Your task to perform on an android device: show emergency info Image 0: 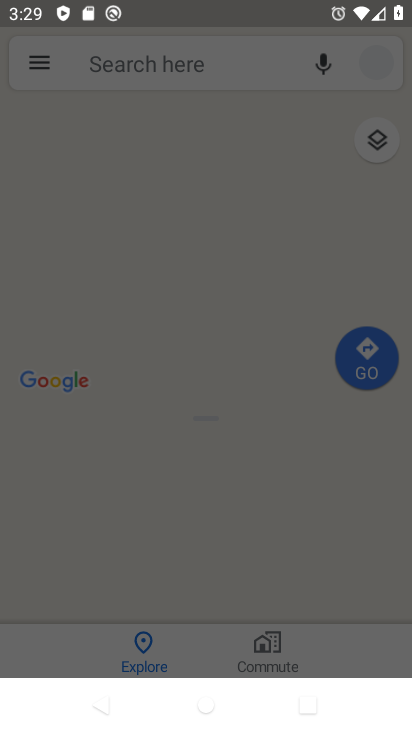
Step 0: press home button
Your task to perform on an android device: show emergency info Image 1: 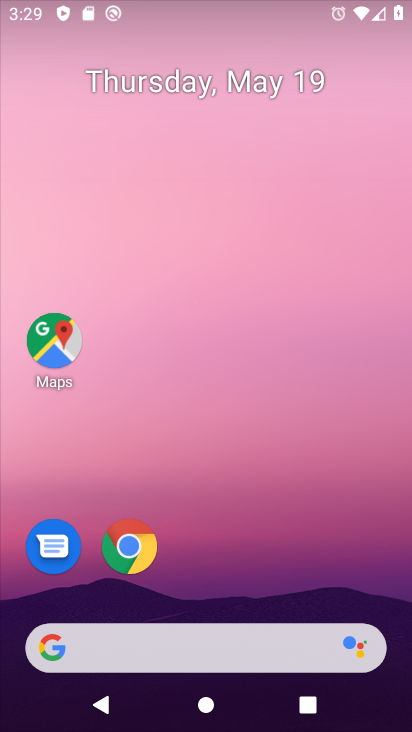
Step 1: press home button
Your task to perform on an android device: show emergency info Image 2: 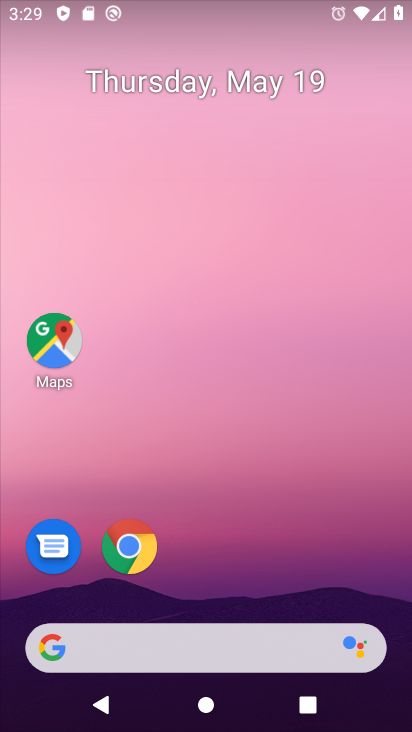
Step 2: drag from (215, 606) to (238, 60)
Your task to perform on an android device: show emergency info Image 3: 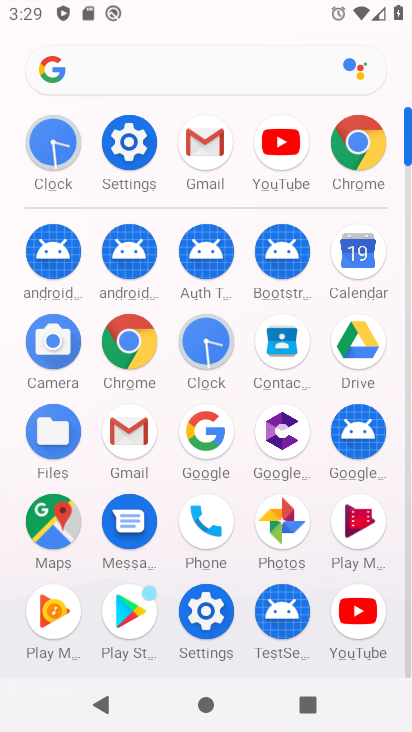
Step 3: click (205, 605)
Your task to perform on an android device: show emergency info Image 4: 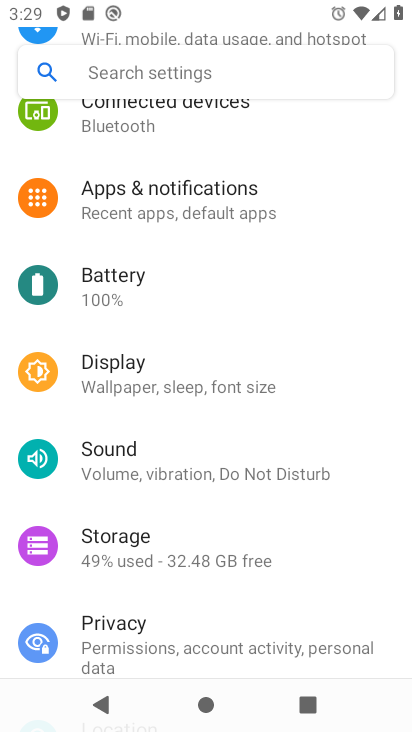
Step 4: drag from (177, 618) to (215, 44)
Your task to perform on an android device: show emergency info Image 5: 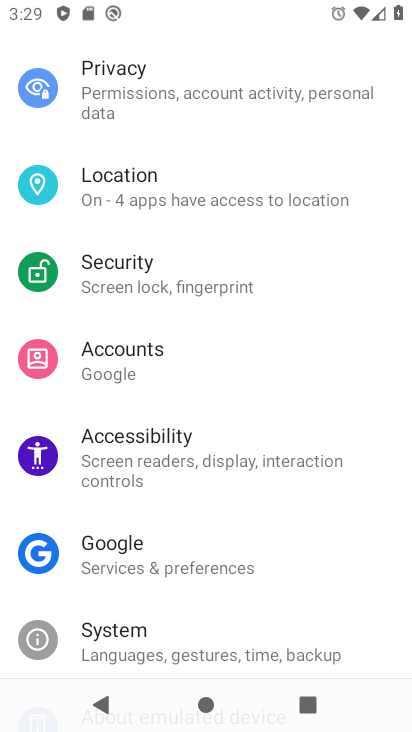
Step 5: drag from (189, 629) to (227, 114)
Your task to perform on an android device: show emergency info Image 6: 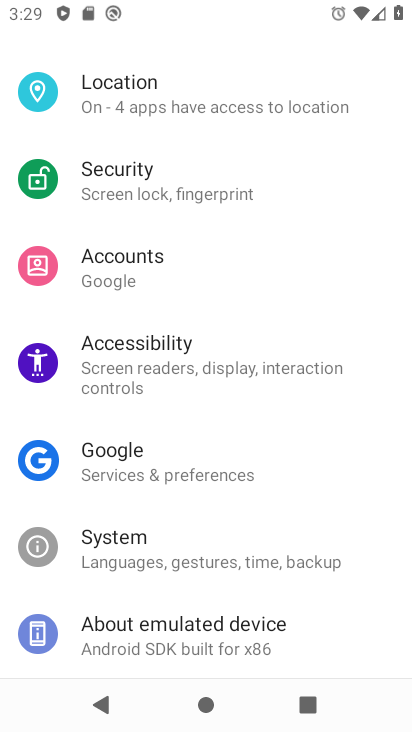
Step 6: click (280, 642)
Your task to perform on an android device: show emergency info Image 7: 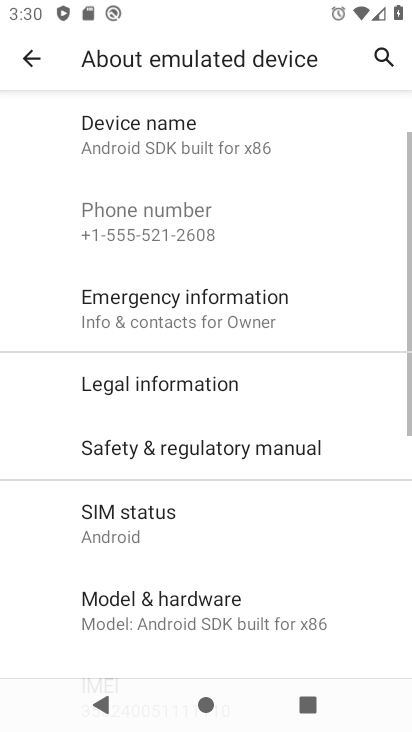
Step 7: click (293, 307)
Your task to perform on an android device: show emergency info Image 8: 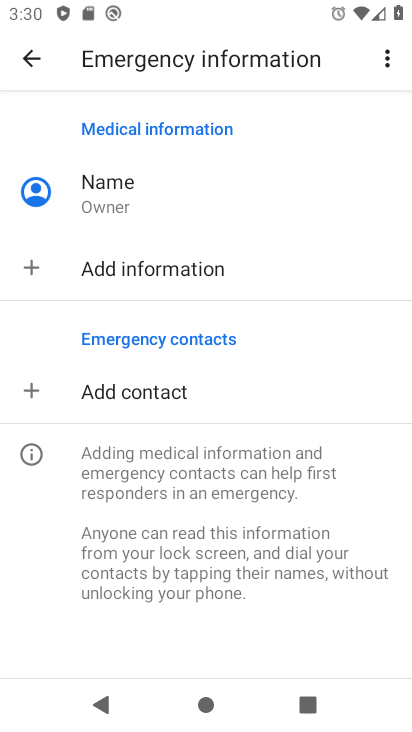
Step 8: task complete